Your task to perform on an android device: install app "Lyft - Rideshare, Bikes, Scooters & Transit" Image 0: 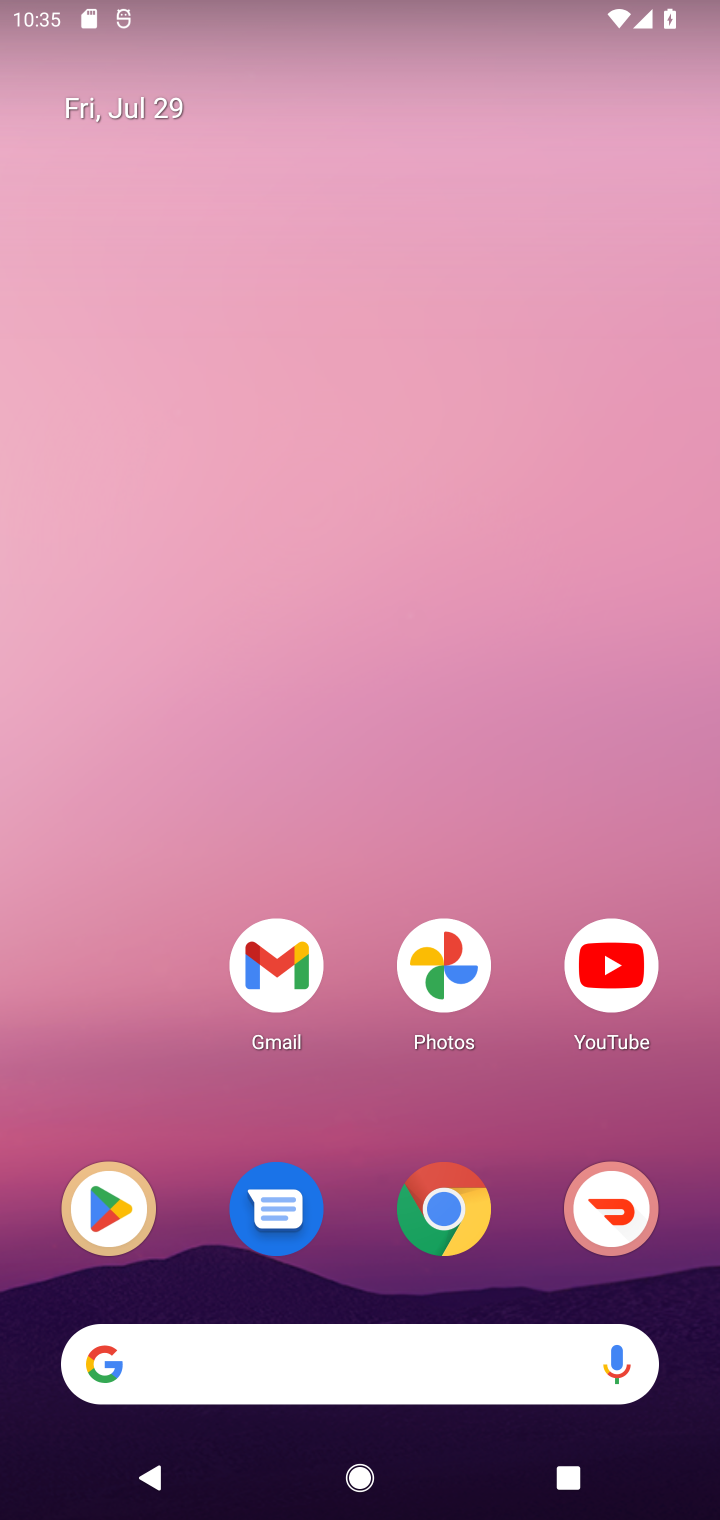
Step 0: drag from (519, 982) to (587, 207)
Your task to perform on an android device: install app "Lyft - Rideshare, Bikes, Scooters & Transit" Image 1: 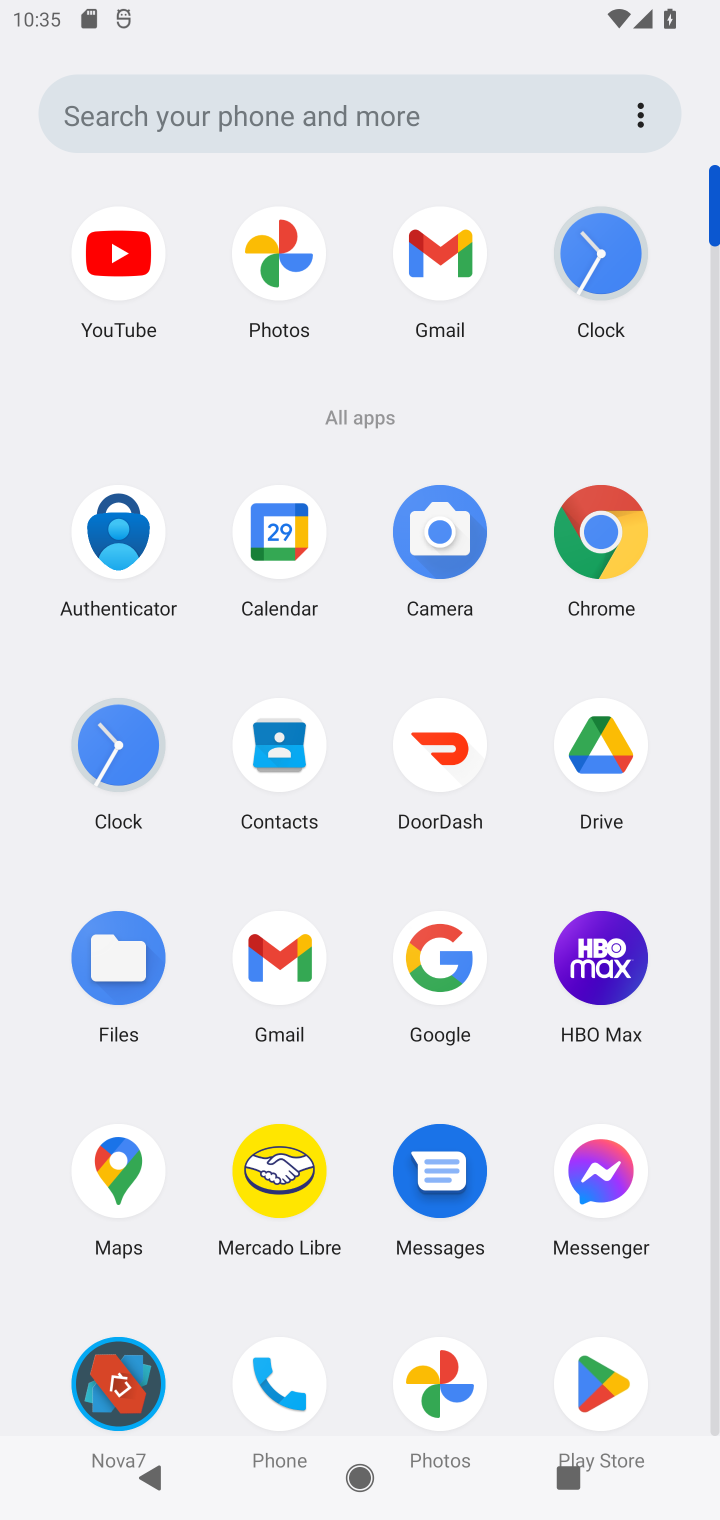
Step 1: click (616, 1396)
Your task to perform on an android device: install app "Lyft - Rideshare, Bikes, Scooters & Transit" Image 2: 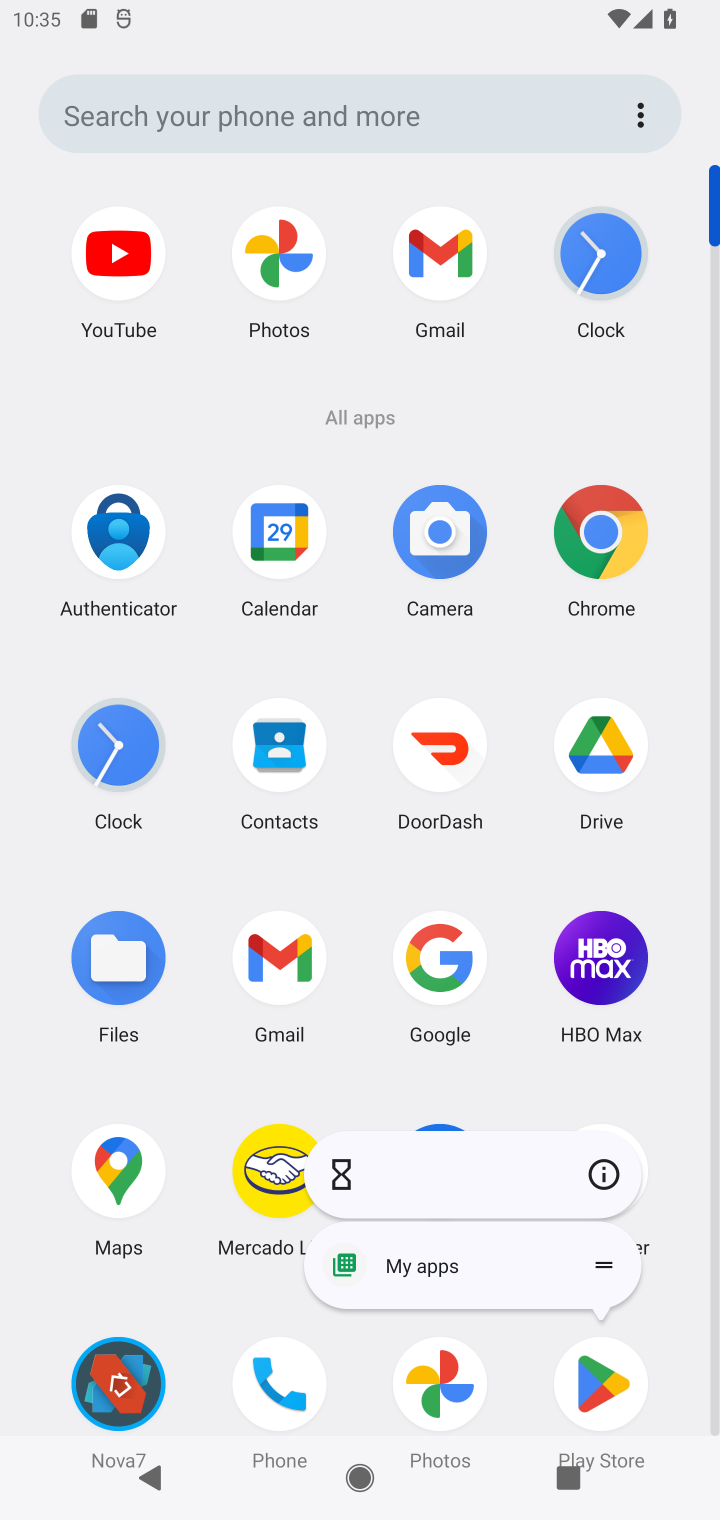
Step 2: click (591, 1402)
Your task to perform on an android device: install app "Lyft - Rideshare, Bikes, Scooters & Transit" Image 3: 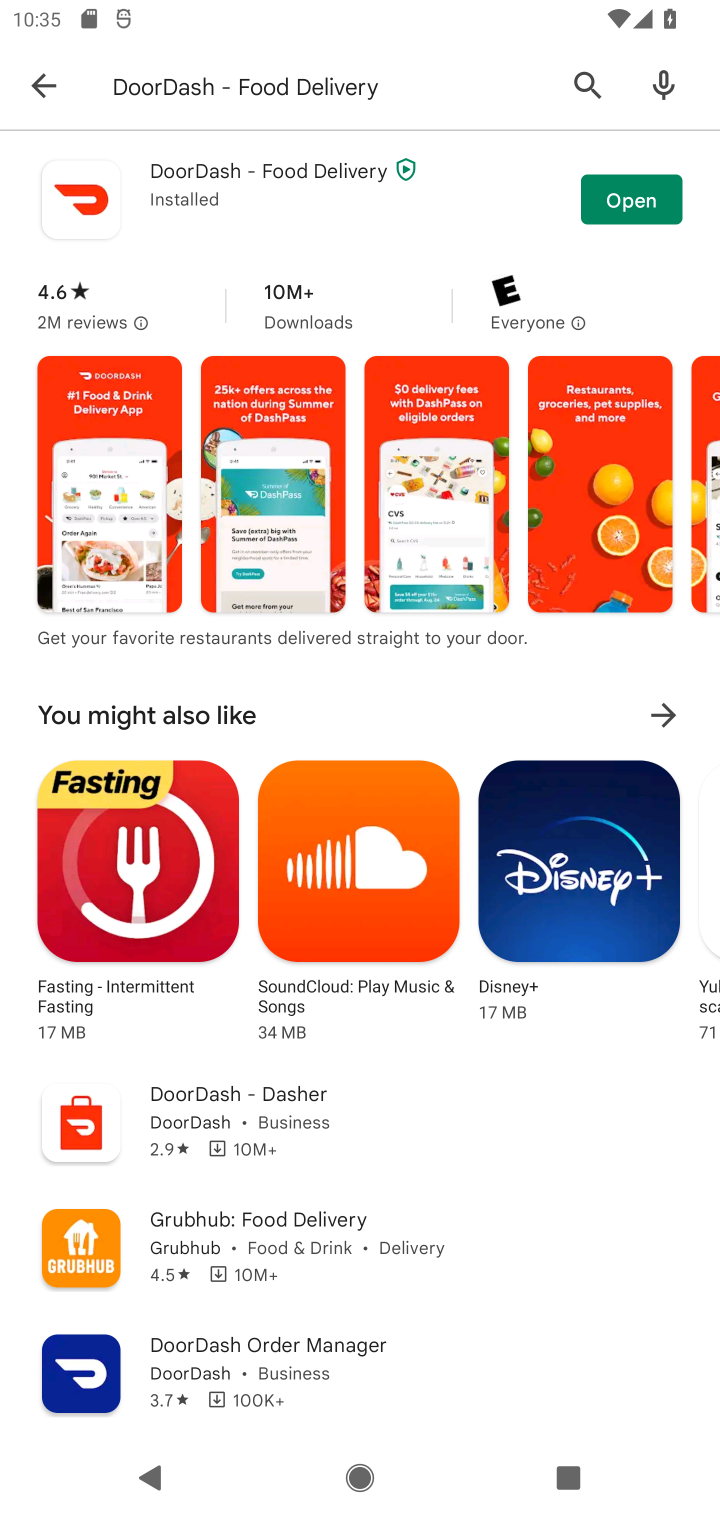
Step 3: click (340, 76)
Your task to perform on an android device: install app "Lyft - Rideshare, Bikes, Scooters & Transit" Image 4: 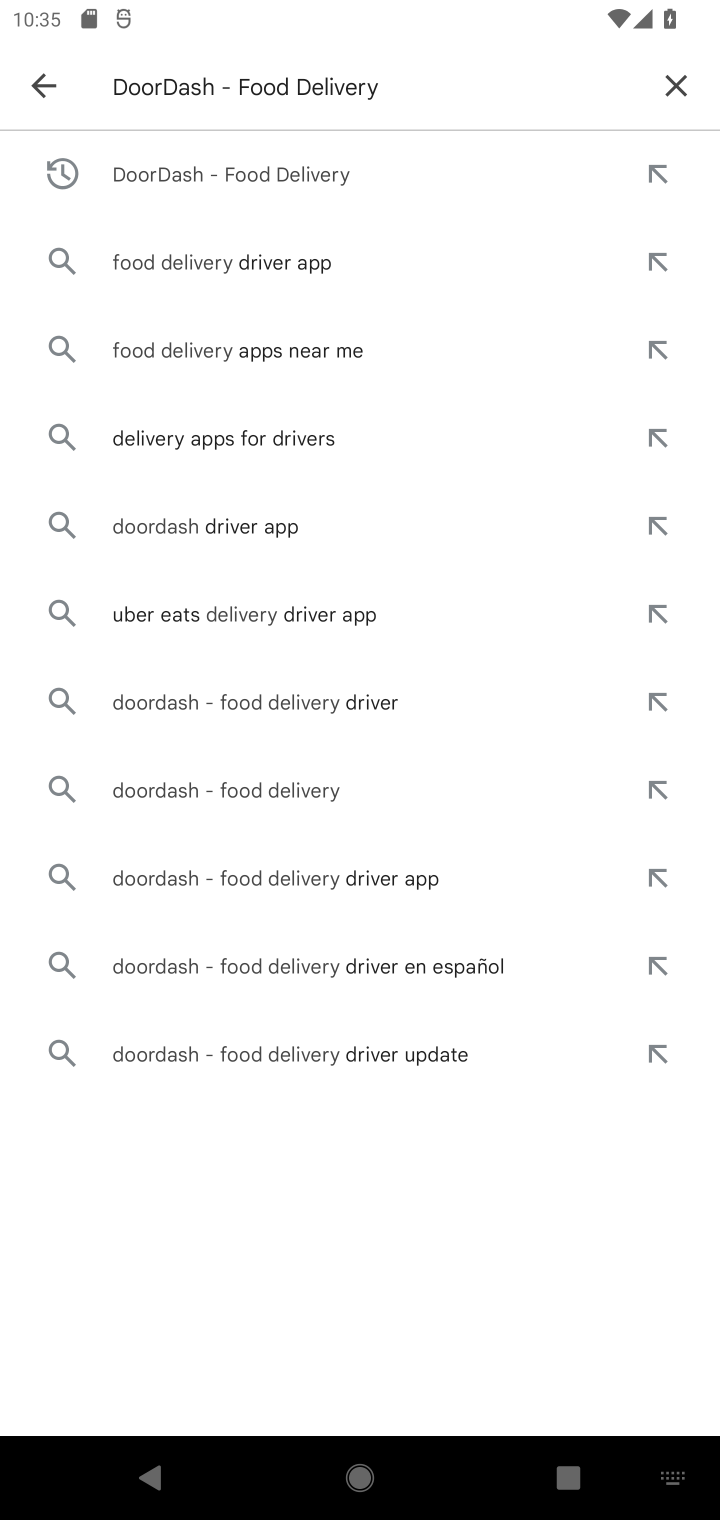
Step 4: type ""
Your task to perform on an android device: install app "Lyft - Rideshare, Bikes, Scooters & Transit" Image 5: 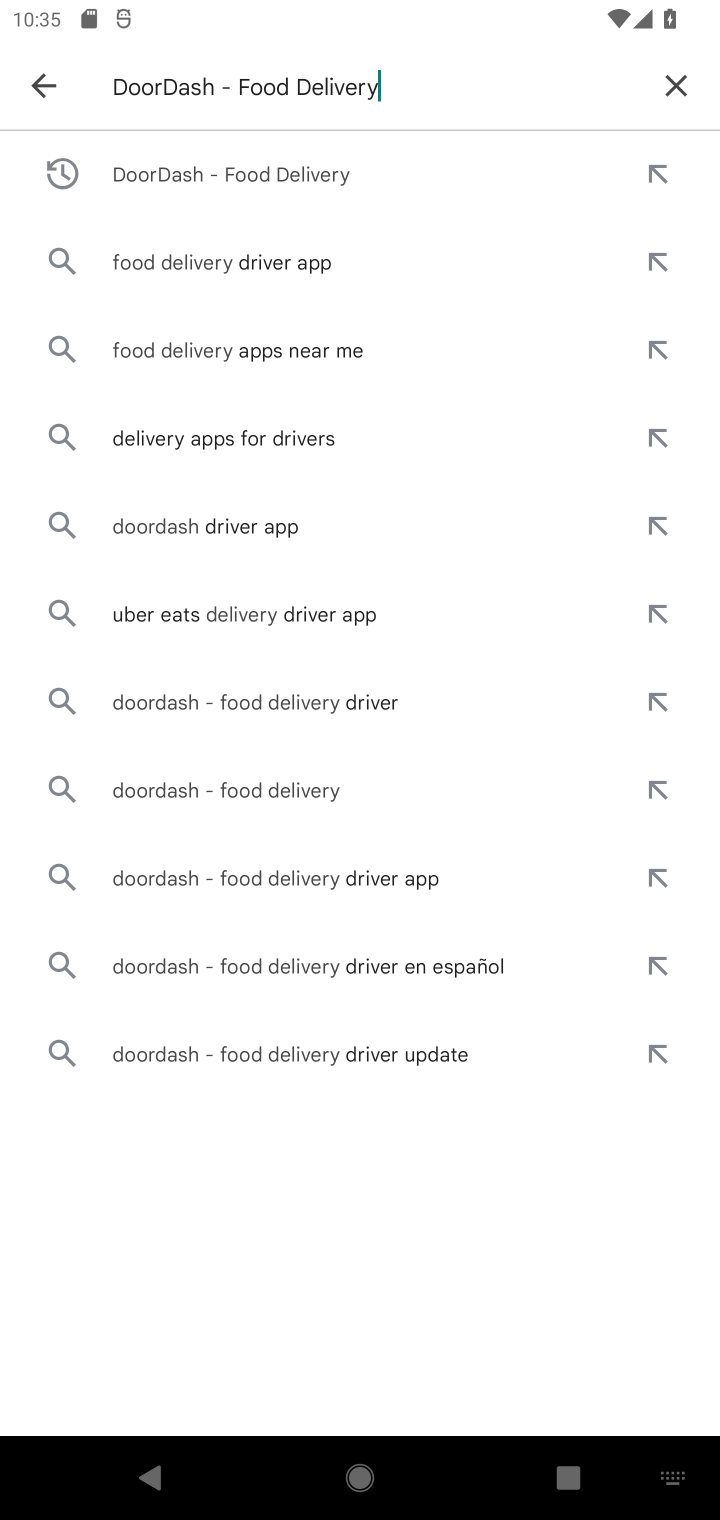
Step 5: click (678, 71)
Your task to perform on an android device: install app "Lyft - Rideshare, Bikes, Scooters & Transit" Image 6: 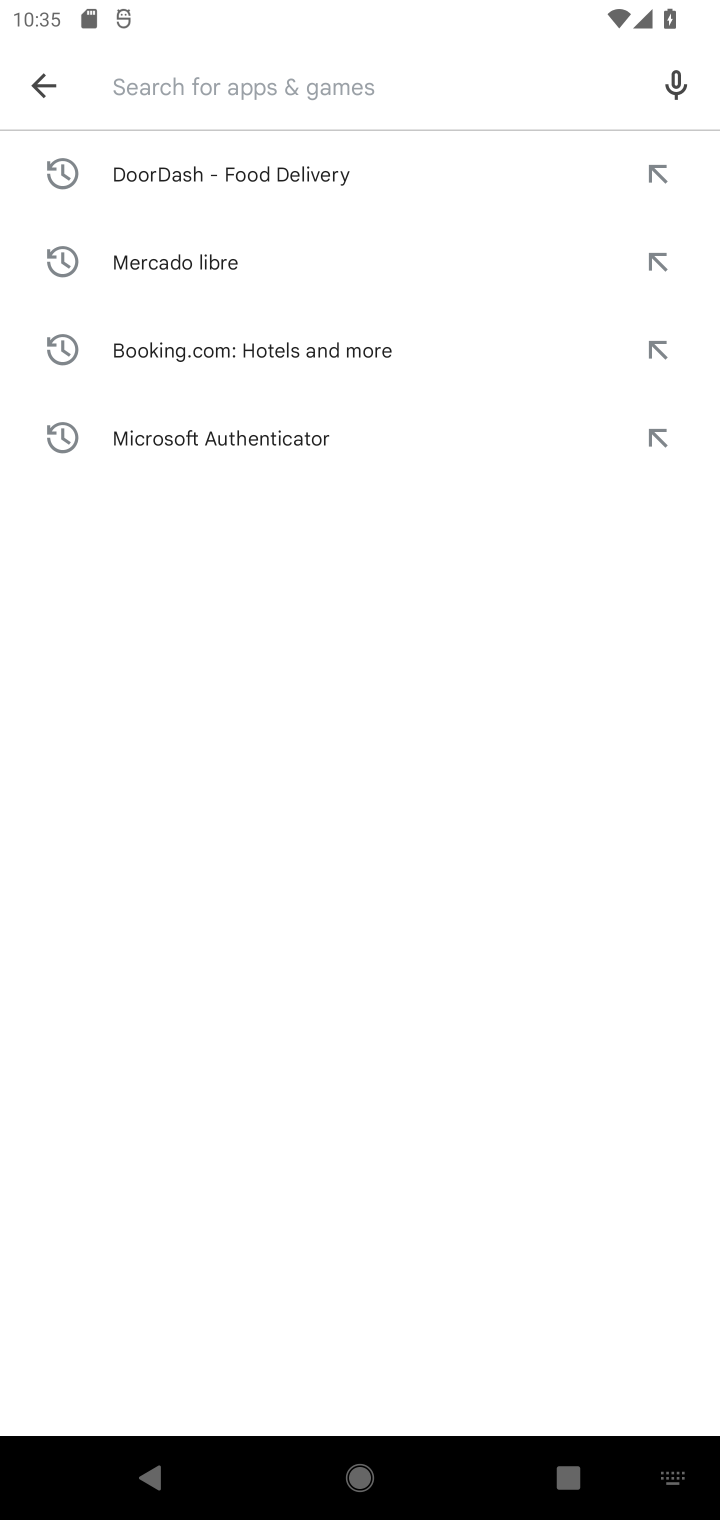
Step 6: type "Lyft - Rideshare, Bikes, Scooters & Transit"
Your task to perform on an android device: install app "Lyft - Rideshare, Bikes, Scooters & Transit" Image 7: 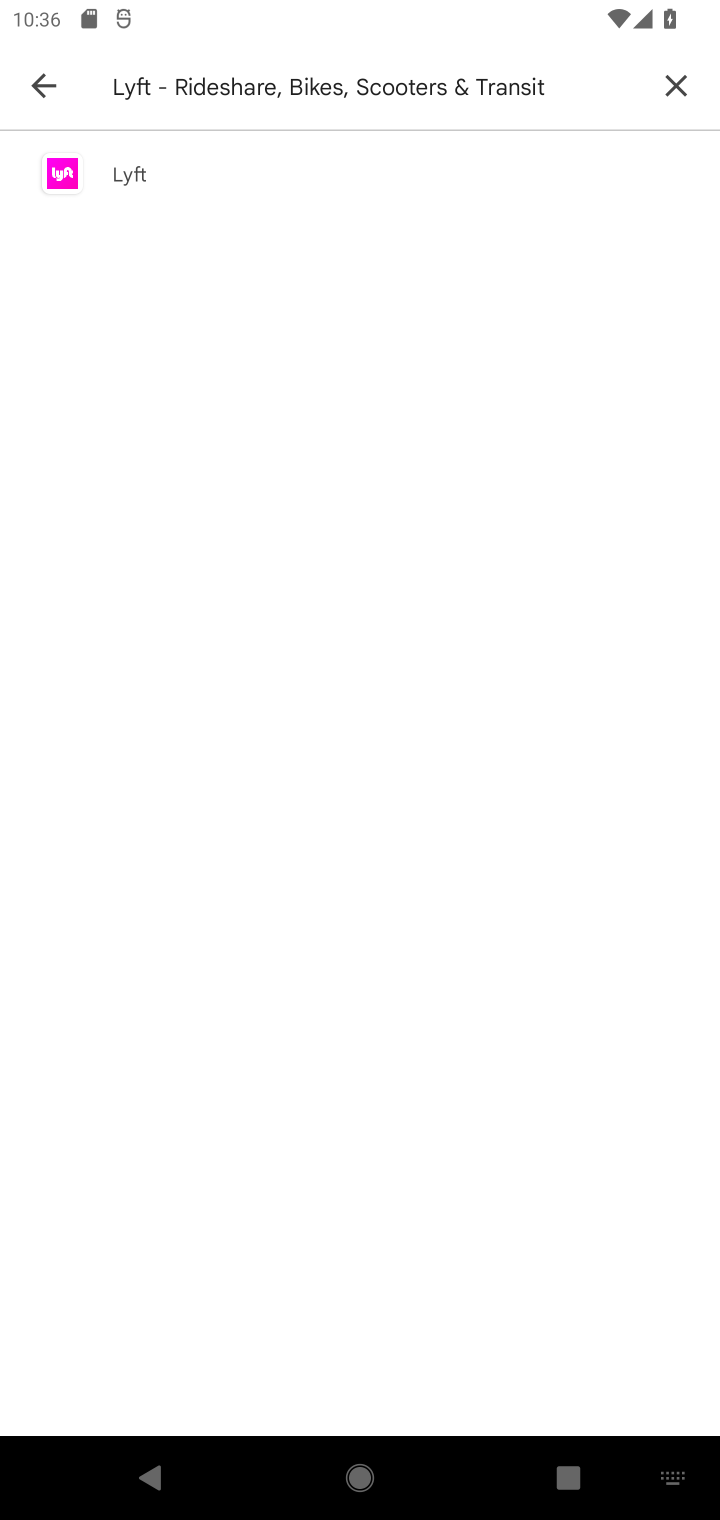
Step 7: press enter
Your task to perform on an android device: install app "Lyft - Rideshare, Bikes, Scooters & Transit" Image 8: 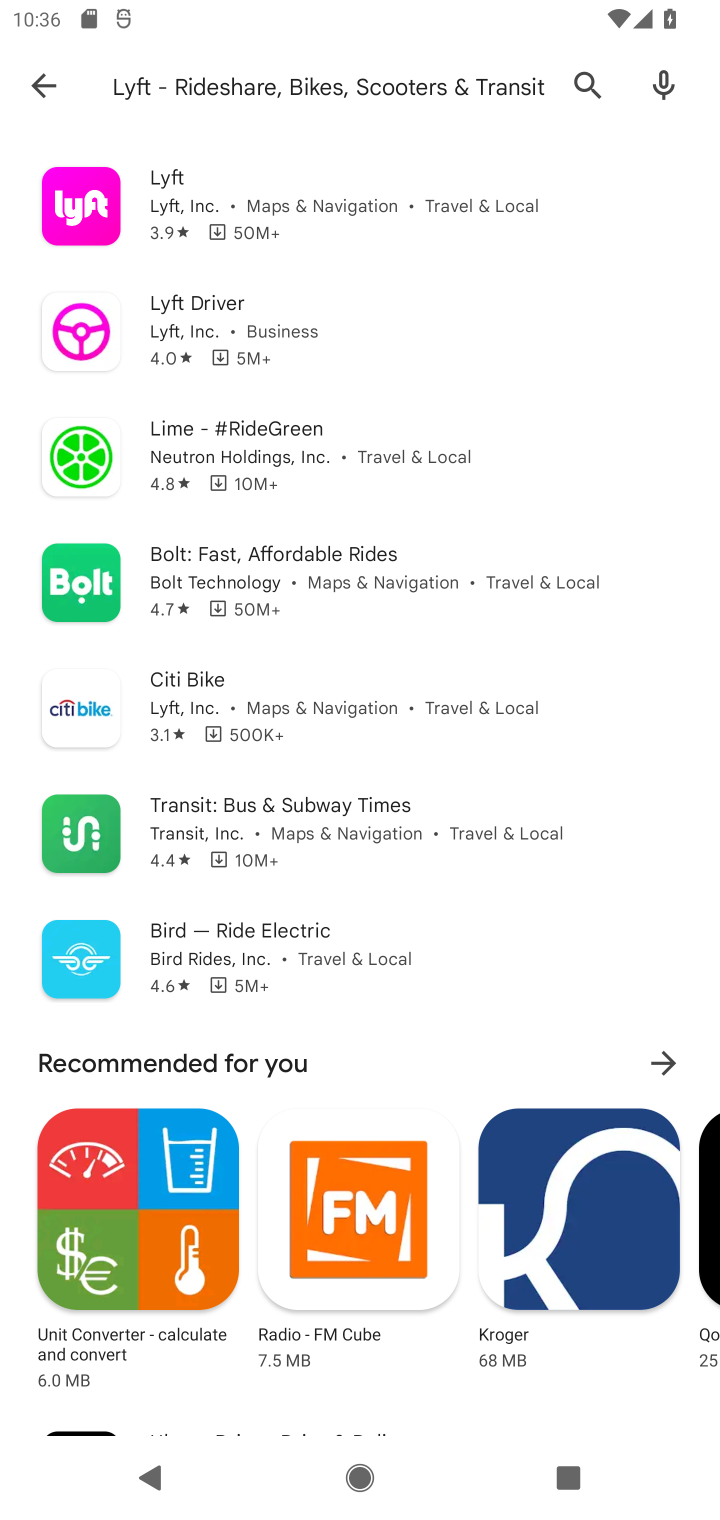
Step 8: click (251, 188)
Your task to perform on an android device: install app "Lyft - Rideshare, Bikes, Scooters & Transit" Image 9: 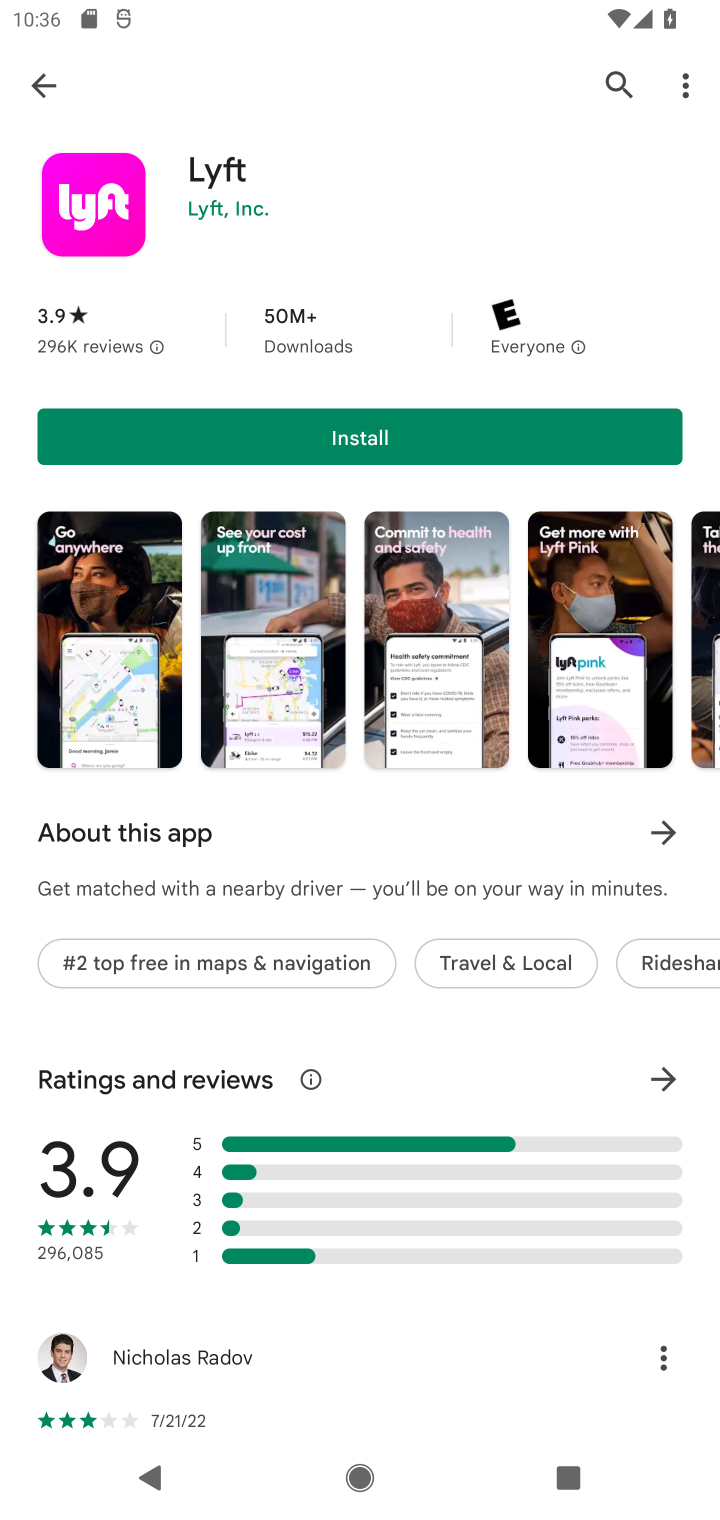
Step 9: click (308, 429)
Your task to perform on an android device: install app "Lyft - Rideshare, Bikes, Scooters & Transit" Image 10: 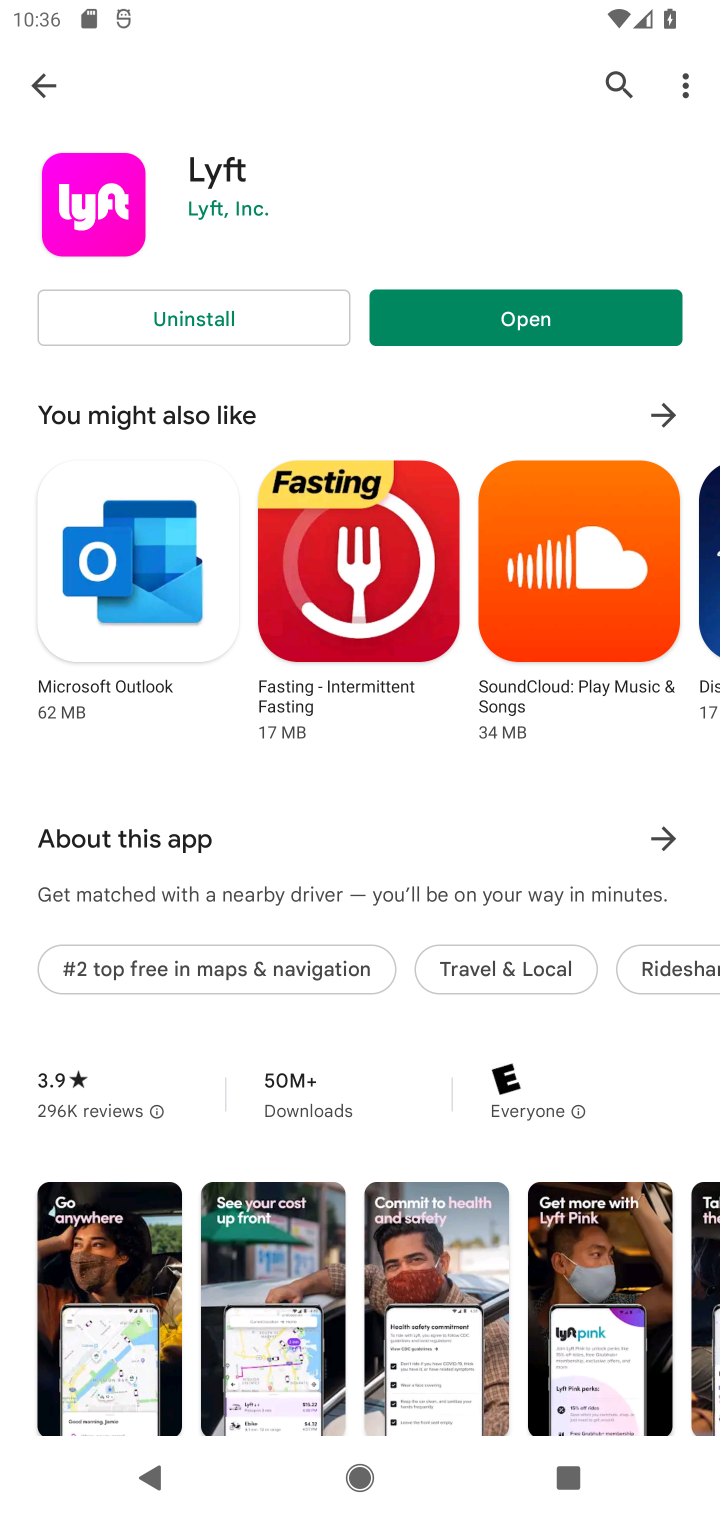
Step 10: task complete